Your task to perform on an android device: Open the calendar app, open the side menu, and click the "Day" option Image 0: 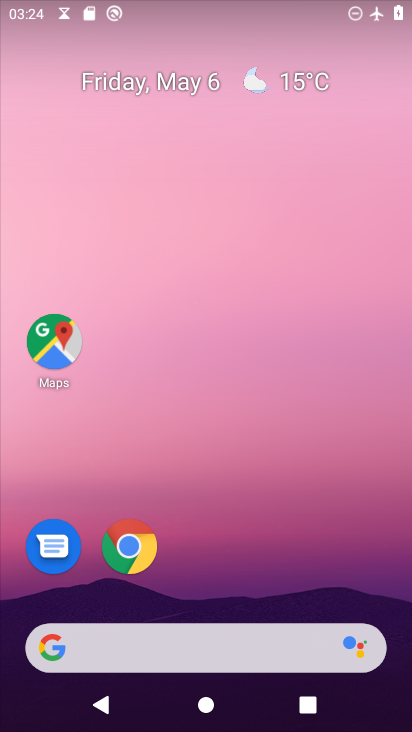
Step 0: drag from (267, 547) to (300, 226)
Your task to perform on an android device: Open the calendar app, open the side menu, and click the "Day" option Image 1: 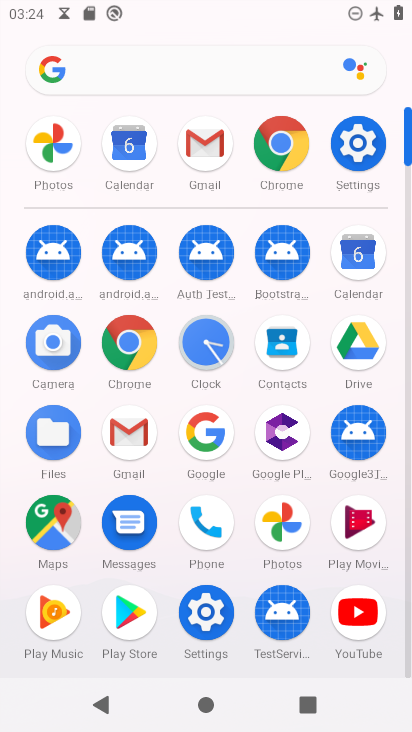
Step 1: click (142, 151)
Your task to perform on an android device: Open the calendar app, open the side menu, and click the "Day" option Image 2: 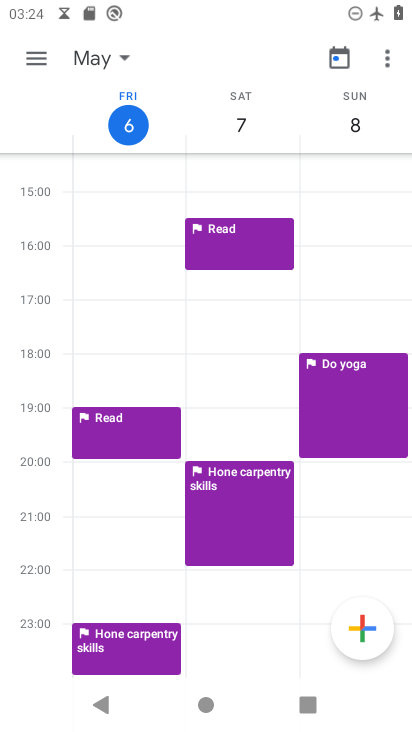
Step 2: click (45, 54)
Your task to perform on an android device: Open the calendar app, open the side menu, and click the "Day" option Image 3: 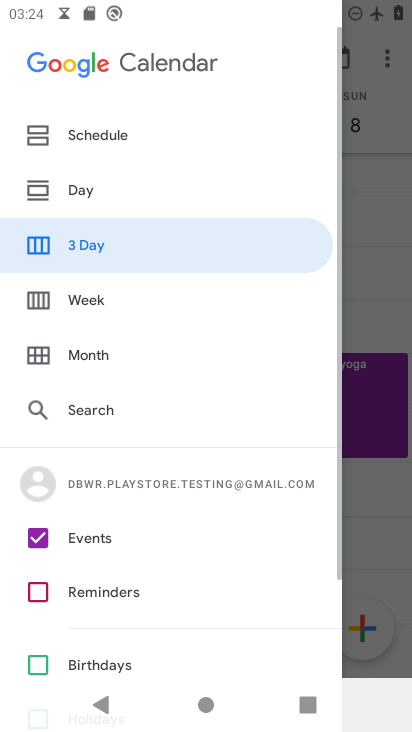
Step 3: click (102, 197)
Your task to perform on an android device: Open the calendar app, open the side menu, and click the "Day" option Image 4: 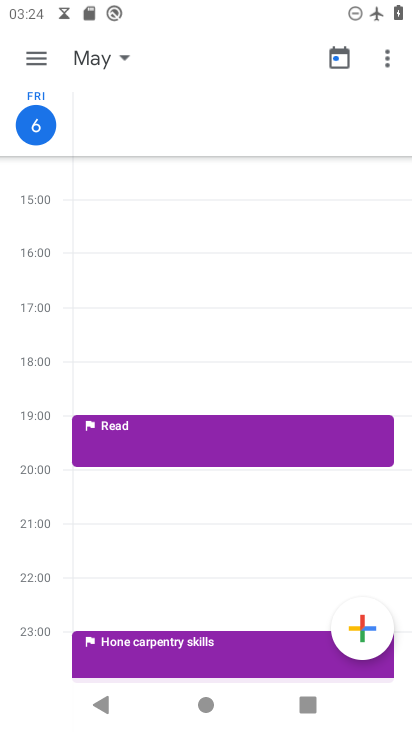
Step 4: task complete